Your task to perform on an android device: find which apps use the phone's location Image 0: 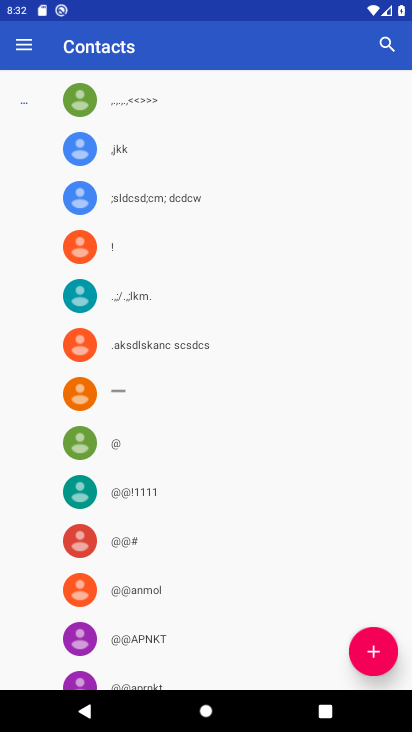
Step 0: press home button
Your task to perform on an android device: find which apps use the phone's location Image 1: 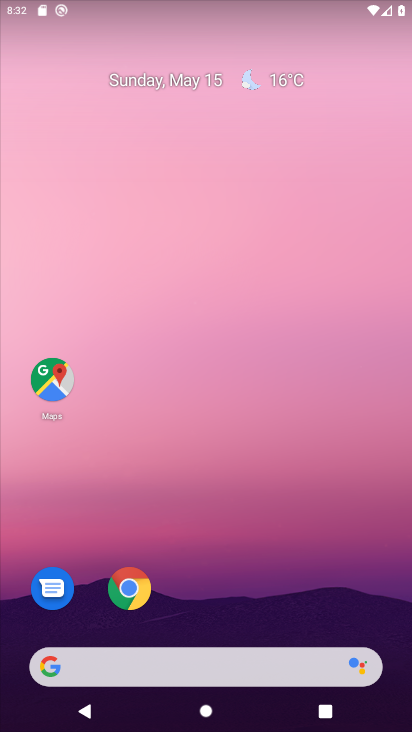
Step 1: drag from (174, 494) to (184, 185)
Your task to perform on an android device: find which apps use the phone's location Image 2: 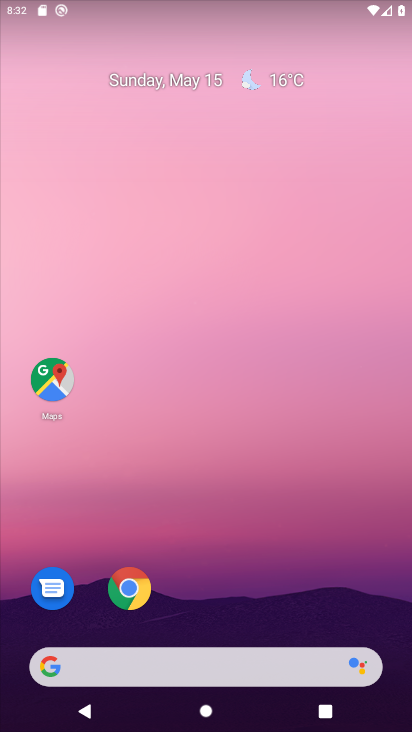
Step 2: drag from (293, 558) to (263, 76)
Your task to perform on an android device: find which apps use the phone's location Image 3: 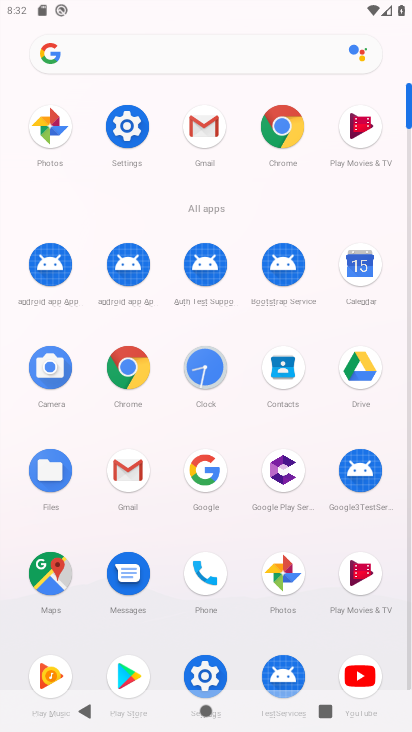
Step 3: click (193, 667)
Your task to perform on an android device: find which apps use the phone's location Image 4: 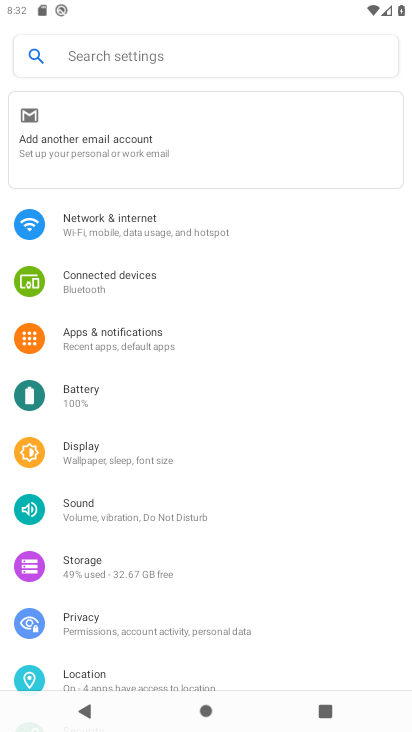
Step 4: drag from (114, 517) to (114, 443)
Your task to perform on an android device: find which apps use the phone's location Image 5: 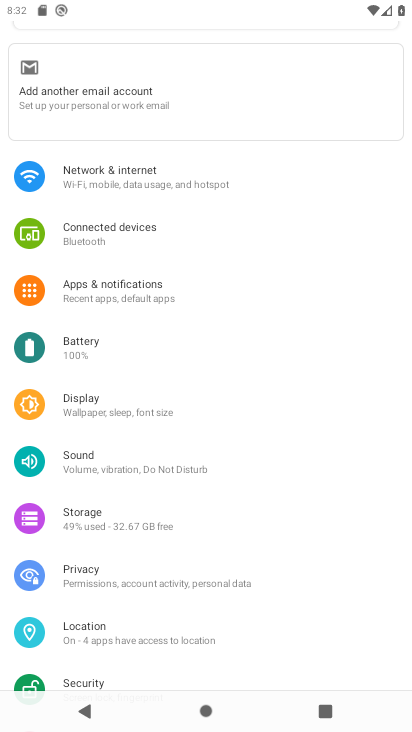
Step 5: click (116, 646)
Your task to perform on an android device: find which apps use the phone's location Image 6: 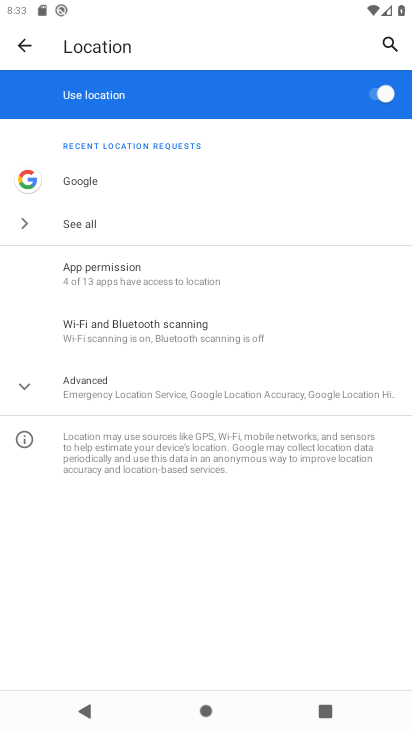
Step 6: click (94, 177)
Your task to perform on an android device: find which apps use the phone's location Image 7: 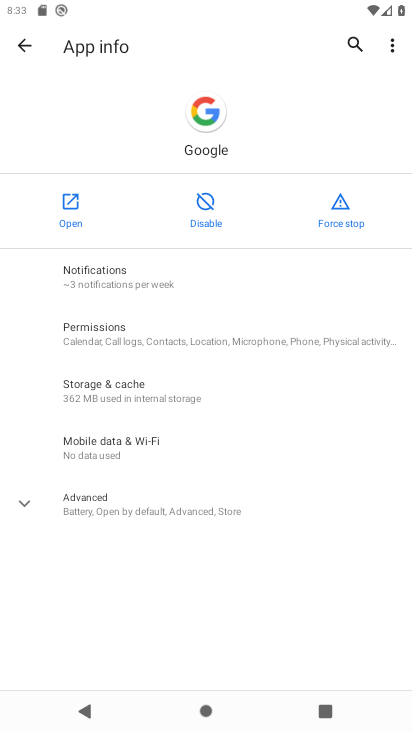
Step 7: click (152, 336)
Your task to perform on an android device: find which apps use the phone's location Image 8: 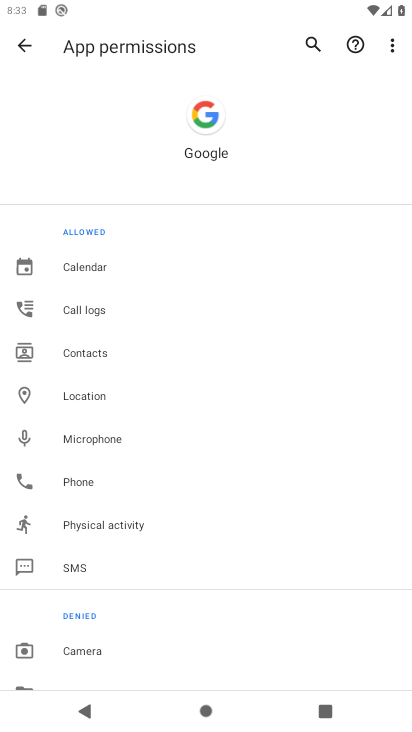
Step 8: click (131, 394)
Your task to perform on an android device: find which apps use the phone's location Image 9: 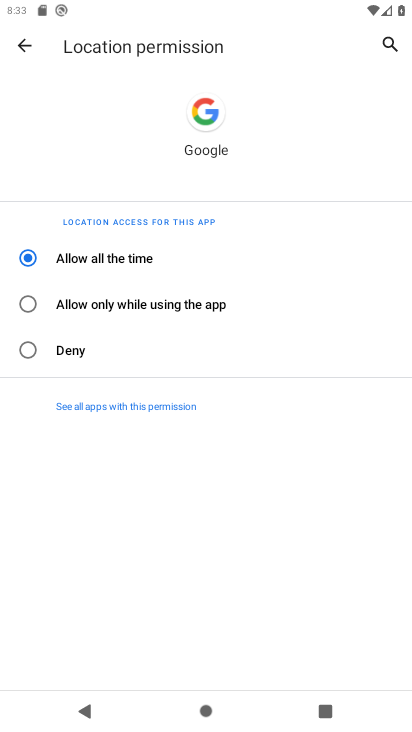
Step 9: task complete